Your task to perform on an android device: turn on sleep mode Image 0: 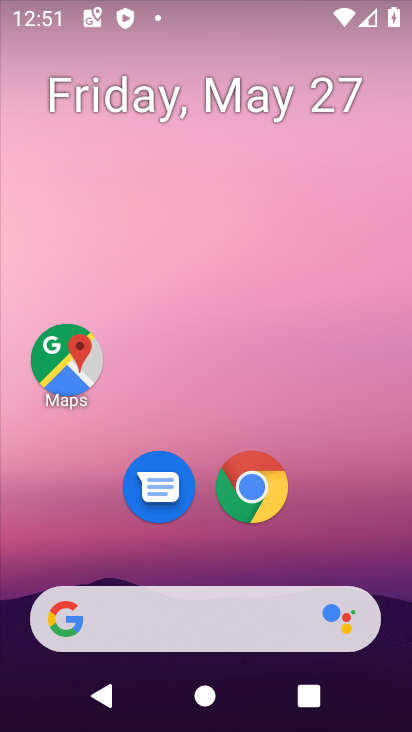
Step 0: drag from (264, 476) to (293, 132)
Your task to perform on an android device: turn on sleep mode Image 1: 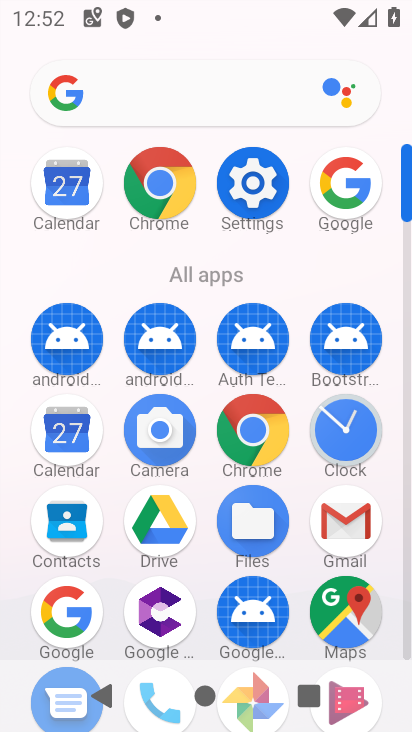
Step 1: click (254, 186)
Your task to perform on an android device: turn on sleep mode Image 2: 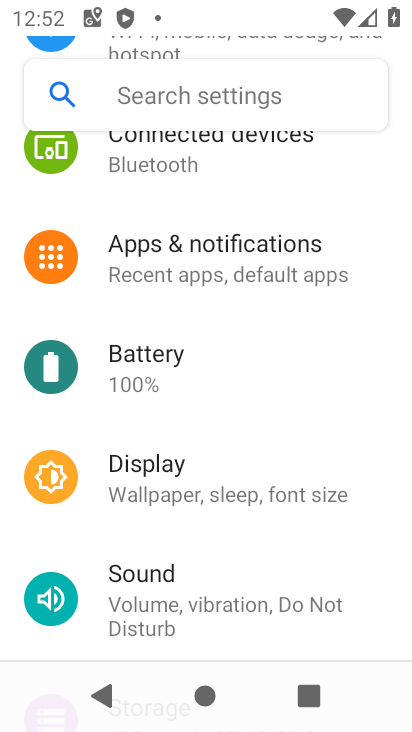
Step 2: click (111, 494)
Your task to perform on an android device: turn on sleep mode Image 3: 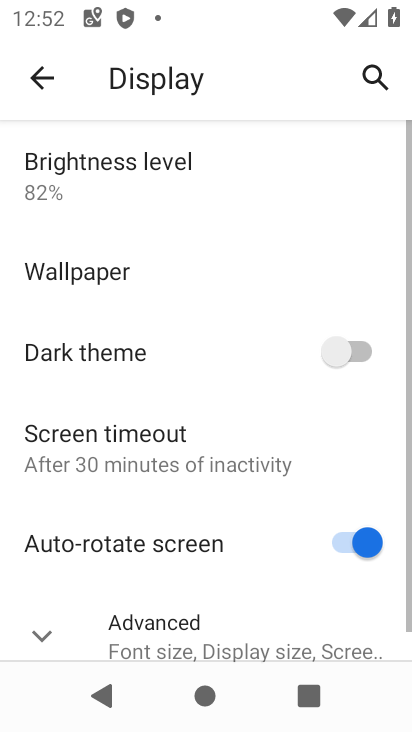
Step 3: click (136, 437)
Your task to perform on an android device: turn on sleep mode Image 4: 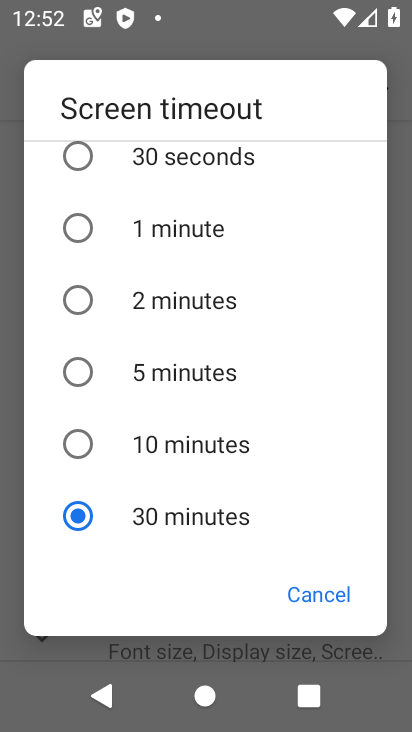
Step 4: task complete